Your task to perform on an android device: change the clock display to digital Image 0: 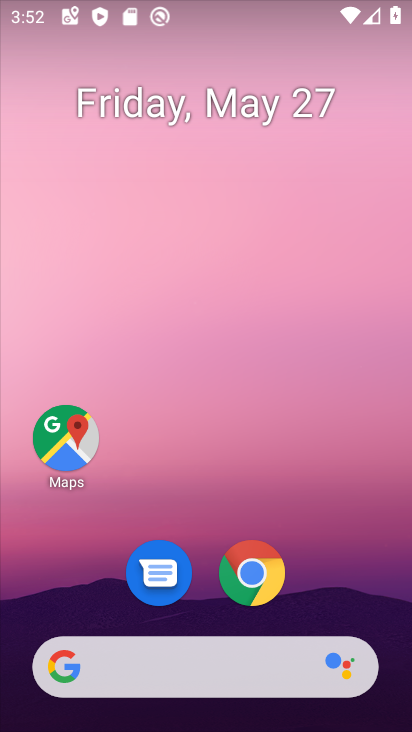
Step 0: drag from (348, 561) to (260, 106)
Your task to perform on an android device: change the clock display to digital Image 1: 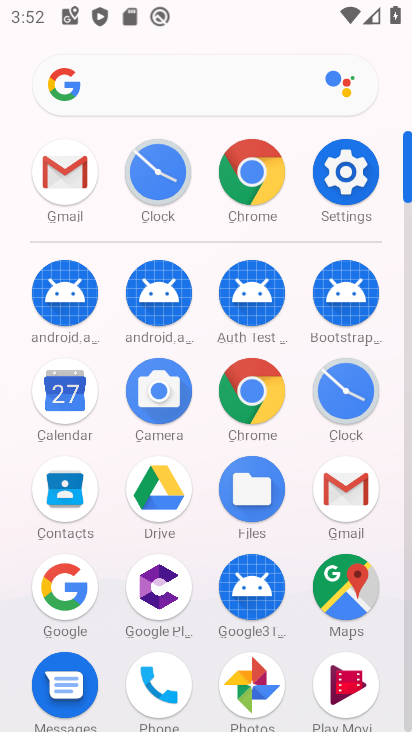
Step 1: click (350, 390)
Your task to perform on an android device: change the clock display to digital Image 2: 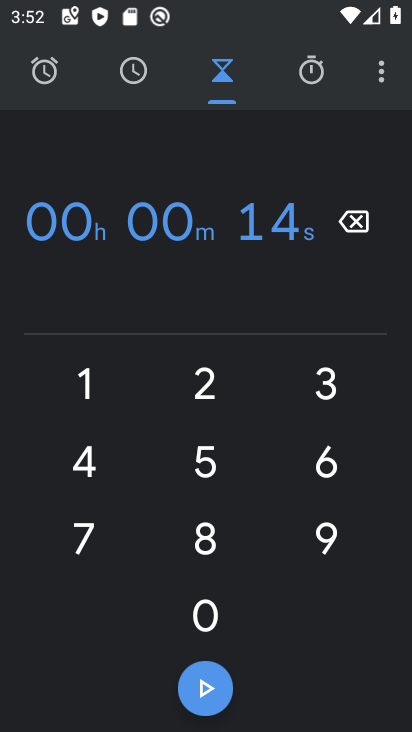
Step 2: click (126, 77)
Your task to perform on an android device: change the clock display to digital Image 3: 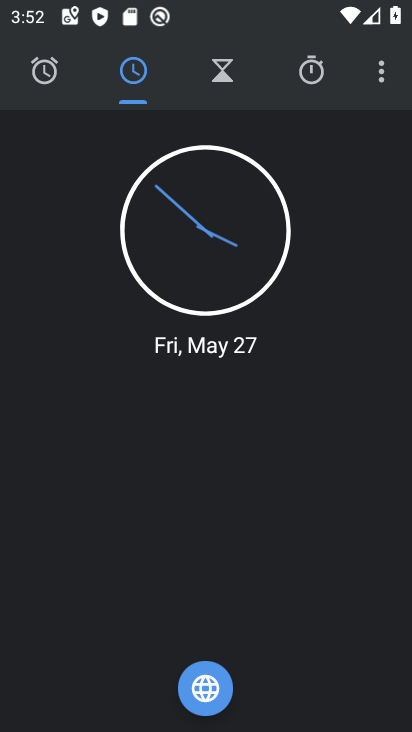
Step 3: click (375, 87)
Your task to perform on an android device: change the clock display to digital Image 4: 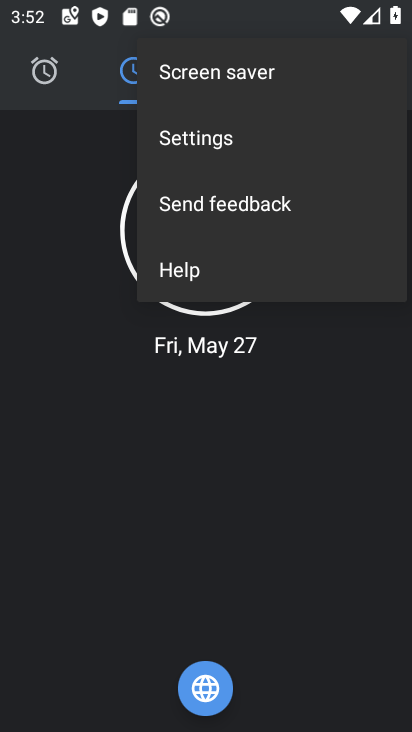
Step 4: click (323, 136)
Your task to perform on an android device: change the clock display to digital Image 5: 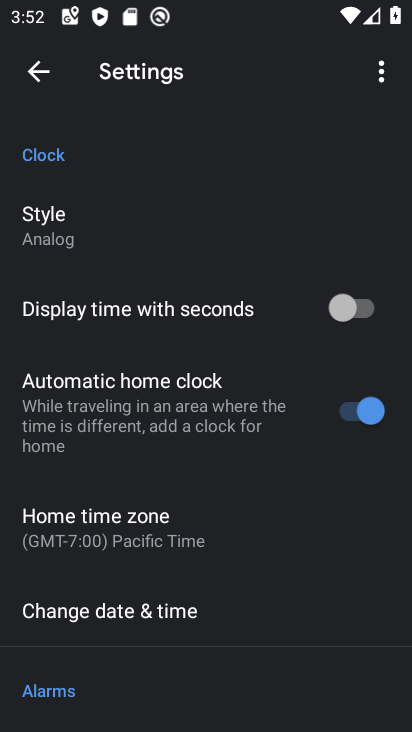
Step 5: click (90, 229)
Your task to perform on an android device: change the clock display to digital Image 6: 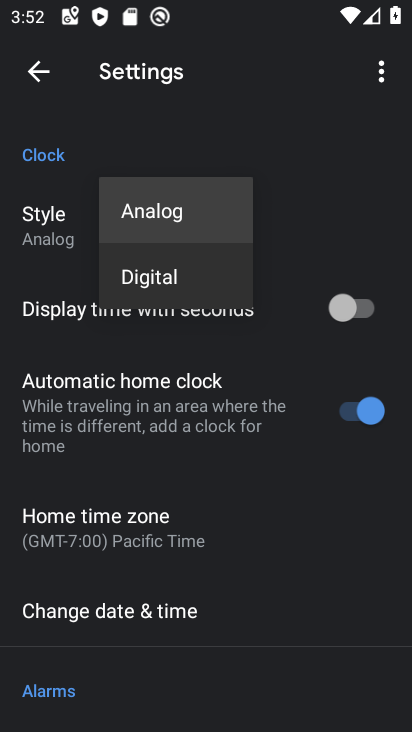
Step 6: click (137, 257)
Your task to perform on an android device: change the clock display to digital Image 7: 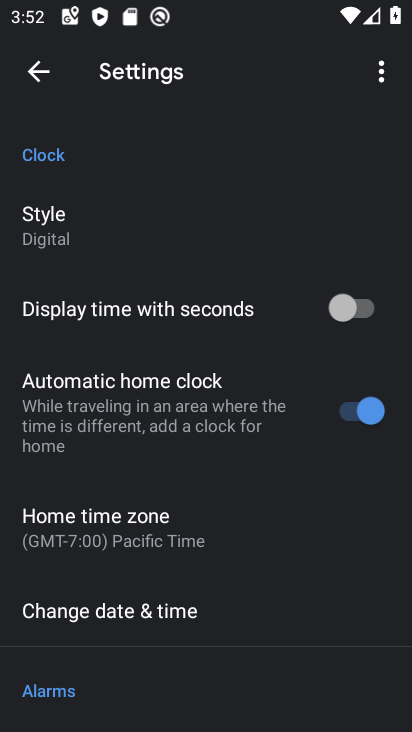
Step 7: click (44, 79)
Your task to perform on an android device: change the clock display to digital Image 8: 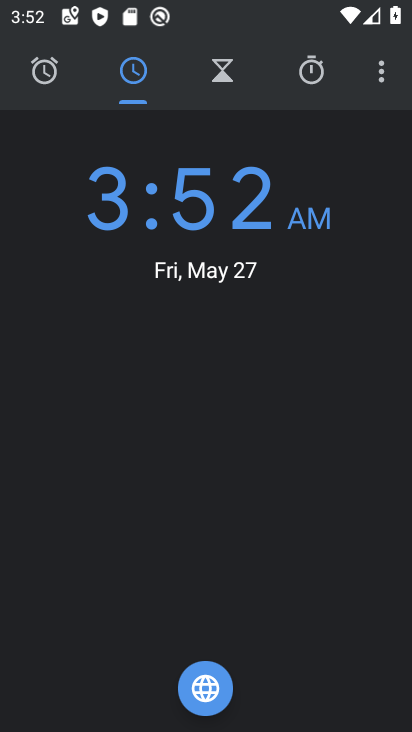
Step 8: task complete